Your task to perform on an android device: turn on notifications settings in the gmail app Image 0: 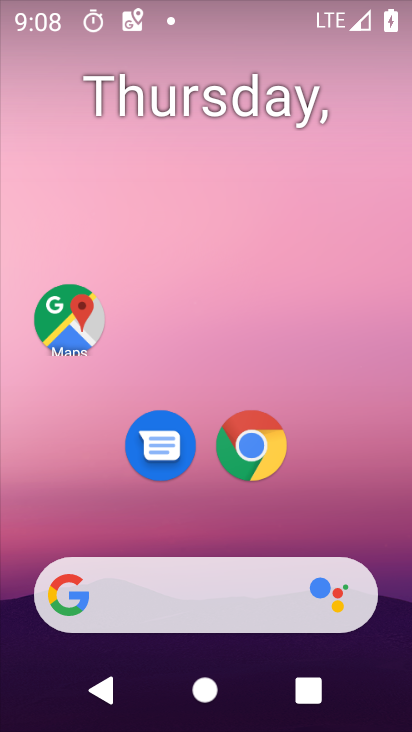
Step 0: drag from (187, 503) to (271, 193)
Your task to perform on an android device: turn on notifications settings in the gmail app Image 1: 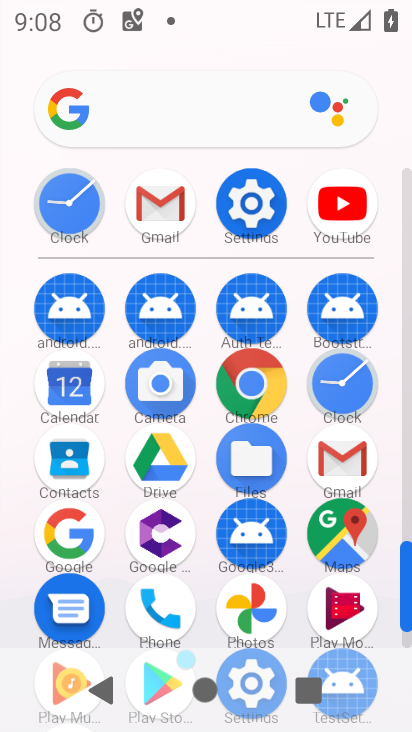
Step 1: click (327, 466)
Your task to perform on an android device: turn on notifications settings in the gmail app Image 2: 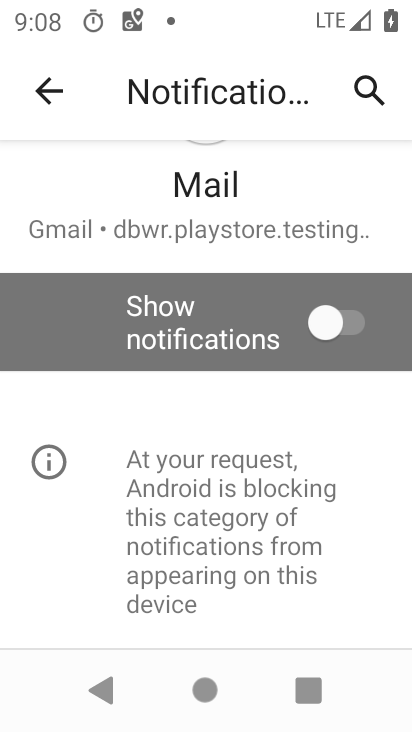
Step 2: drag from (213, 529) to (245, 293)
Your task to perform on an android device: turn on notifications settings in the gmail app Image 3: 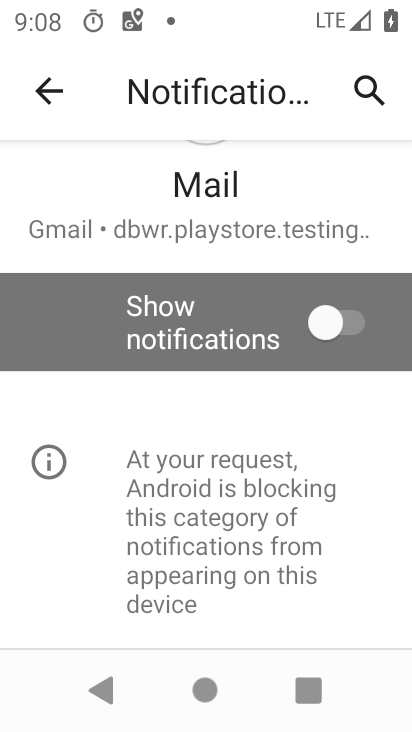
Step 3: drag from (243, 574) to (240, 338)
Your task to perform on an android device: turn on notifications settings in the gmail app Image 4: 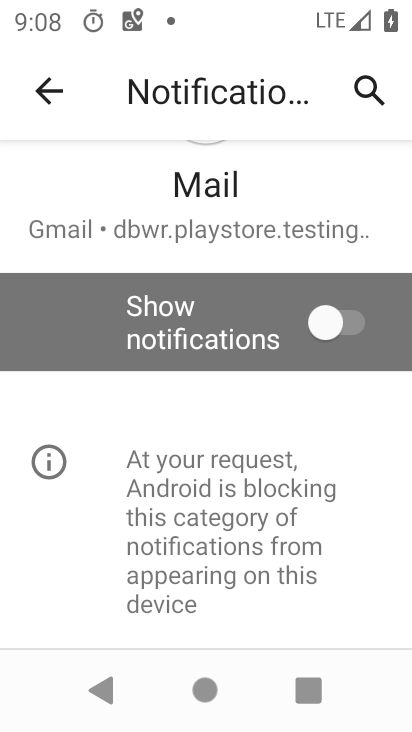
Step 4: click (313, 313)
Your task to perform on an android device: turn on notifications settings in the gmail app Image 5: 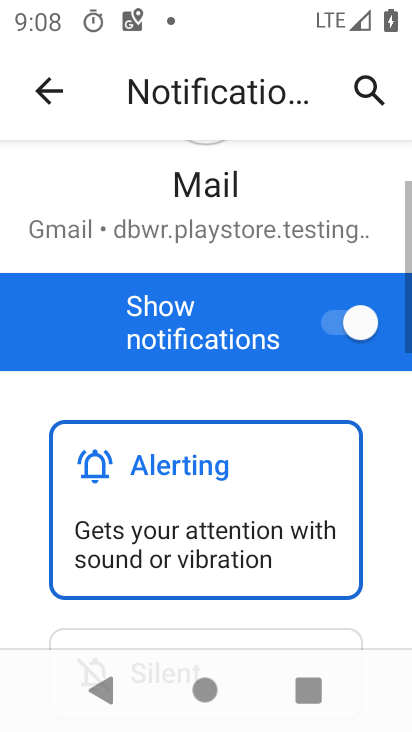
Step 5: task complete